Your task to perform on an android device: change the clock style Image 0: 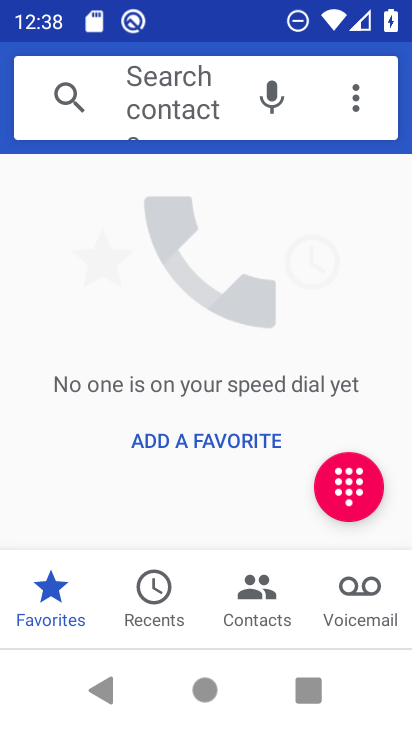
Step 0: press home button
Your task to perform on an android device: change the clock style Image 1: 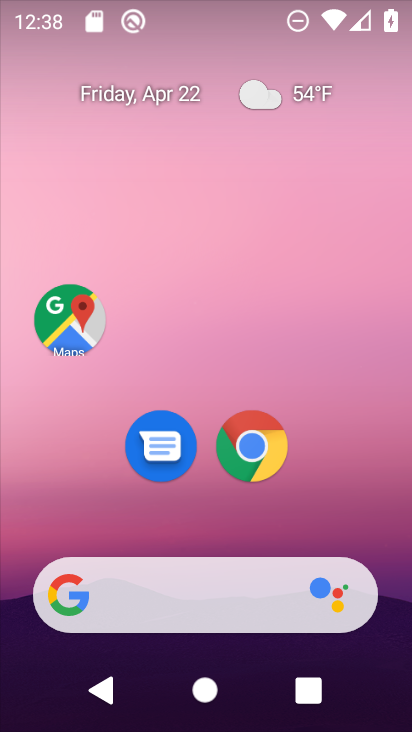
Step 1: drag from (374, 490) to (359, 302)
Your task to perform on an android device: change the clock style Image 2: 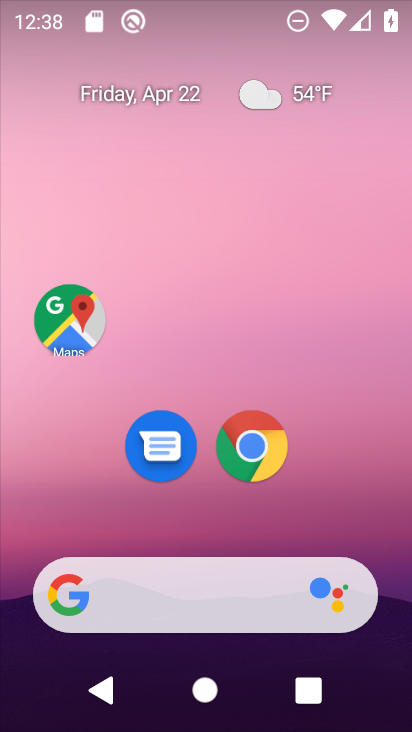
Step 2: drag from (401, 593) to (269, 73)
Your task to perform on an android device: change the clock style Image 3: 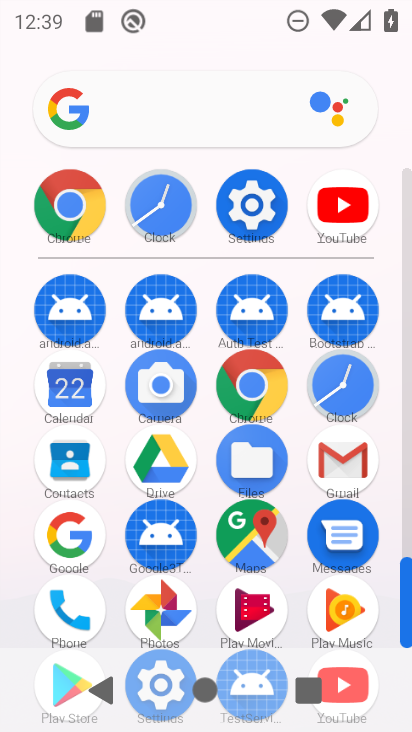
Step 3: click (165, 216)
Your task to perform on an android device: change the clock style Image 4: 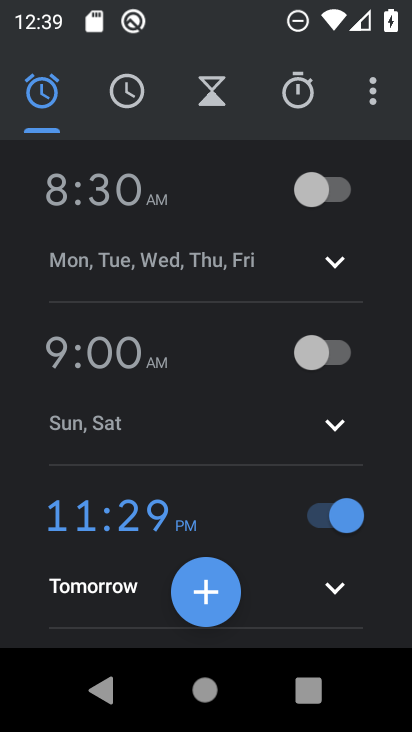
Step 4: click (370, 100)
Your task to perform on an android device: change the clock style Image 5: 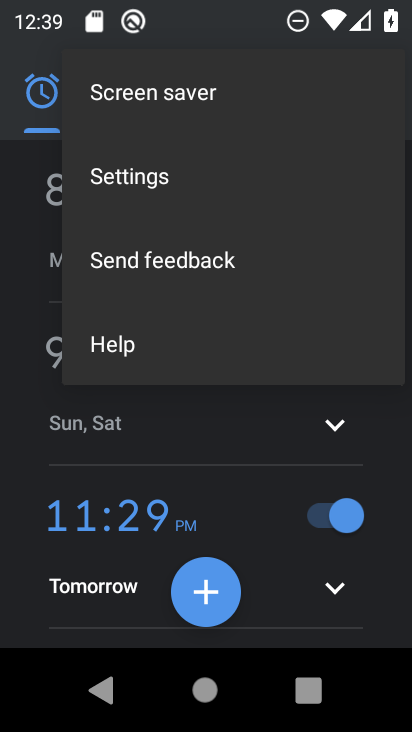
Step 5: click (306, 165)
Your task to perform on an android device: change the clock style Image 6: 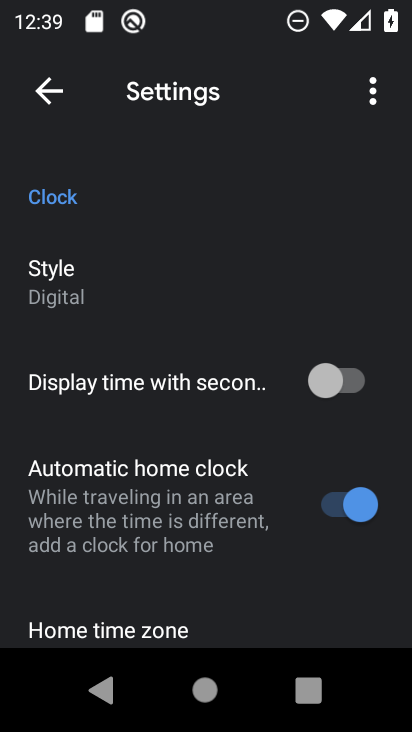
Step 6: click (250, 288)
Your task to perform on an android device: change the clock style Image 7: 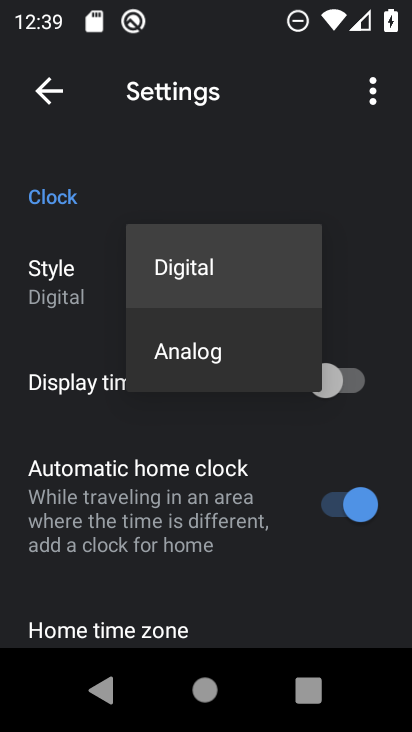
Step 7: click (223, 343)
Your task to perform on an android device: change the clock style Image 8: 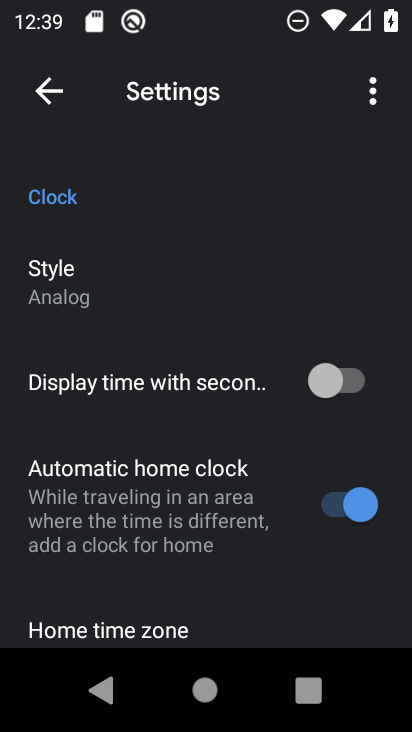
Step 8: task complete